Your task to perform on an android device: Open the calendar and show me this week's events? Image 0: 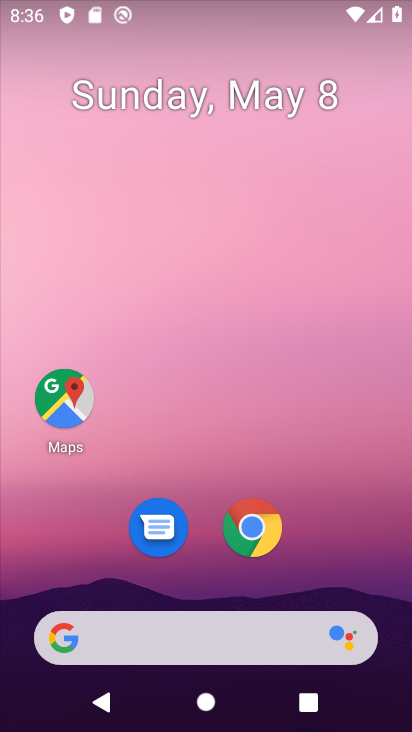
Step 0: drag from (201, 552) to (255, 80)
Your task to perform on an android device: Open the calendar and show me this week's events? Image 1: 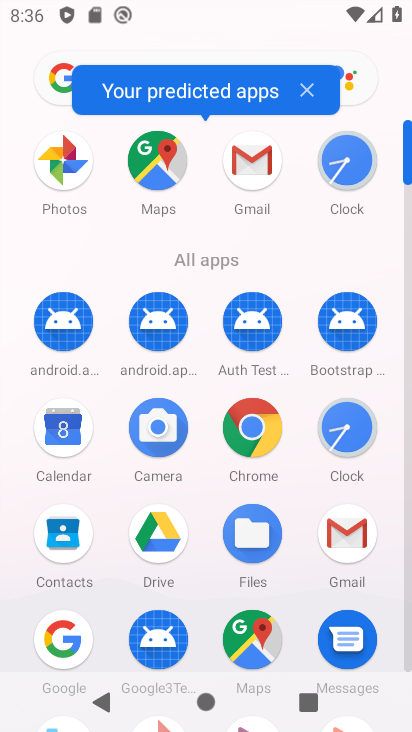
Step 1: click (62, 435)
Your task to perform on an android device: Open the calendar and show me this week's events? Image 2: 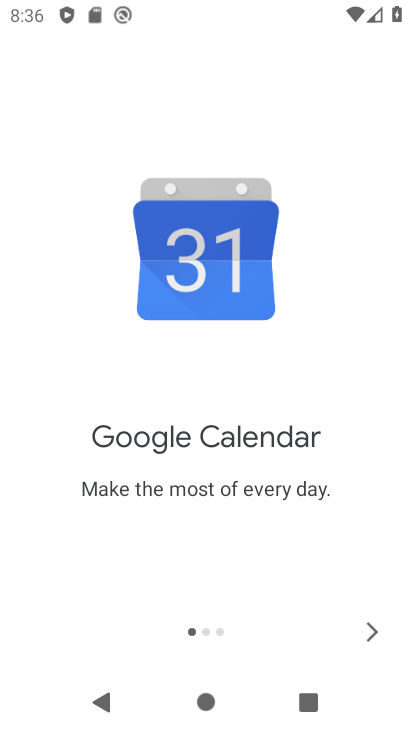
Step 2: click (358, 634)
Your task to perform on an android device: Open the calendar and show me this week's events? Image 3: 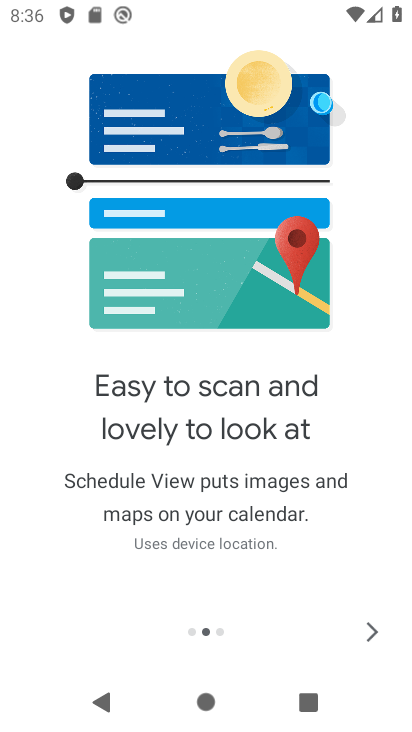
Step 3: click (358, 634)
Your task to perform on an android device: Open the calendar and show me this week's events? Image 4: 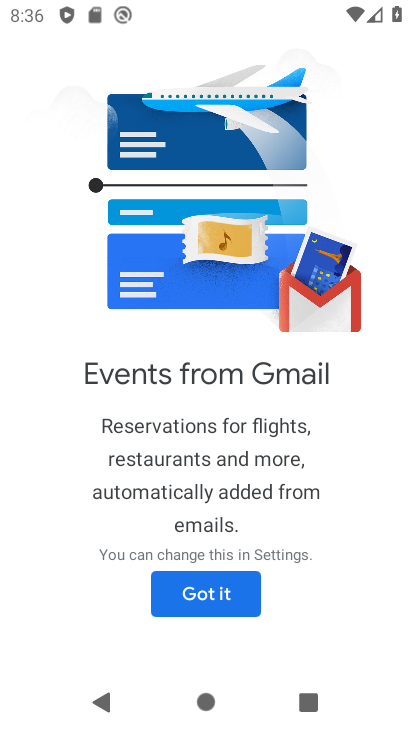
Step 4: click (206, 599)
Your task to perform on an android device: Open the calendar and show me this week's events? Image 5: 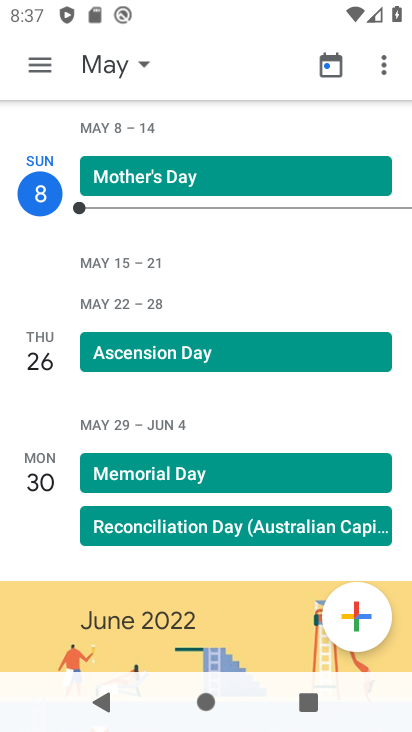
Step 5: click (143, 66)
Your task to perform on an android device: Open the calendar and show me this week's events? Image 6: 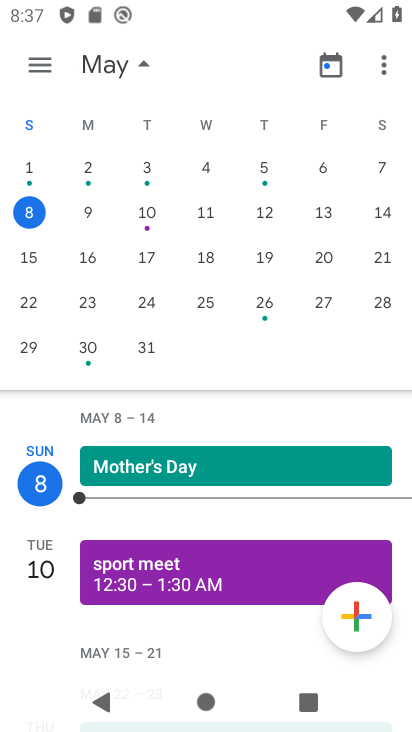
Step 6: click (91, 214)
Your task to perform on an android device: Open the calendar and show me this week's events? Image 7: 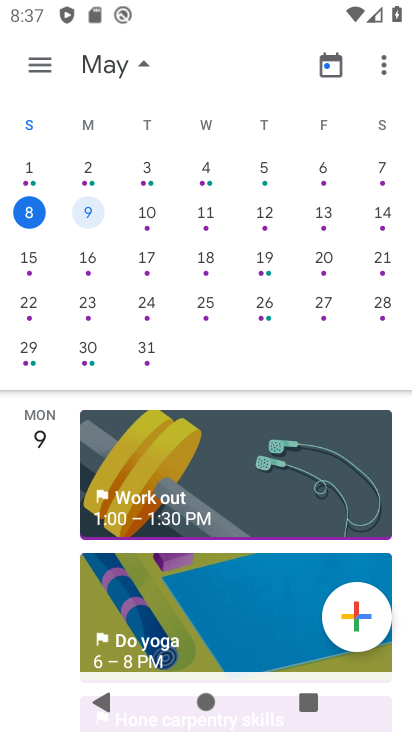
Step 7: task complete